Your task to perform on an android device: open app "Pandora - Music & Podcasts" (install if not already installed) Image 0: 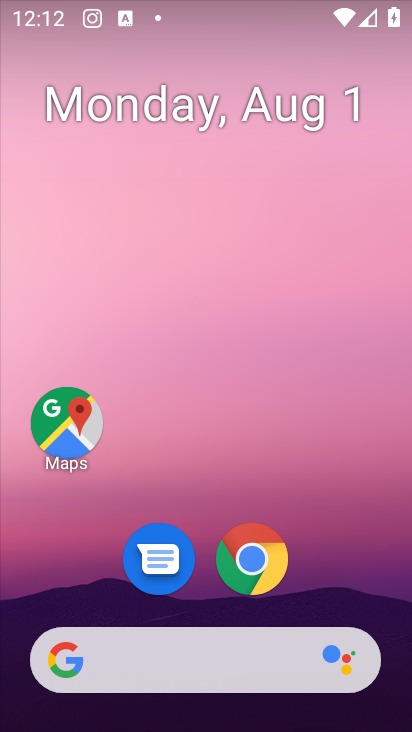
Step 0: drag from (122, 400) to (196, 19)
Your task to perform on an android device: open app "Pandora - Music & Podcasts" (install if not already installed) Image 1: 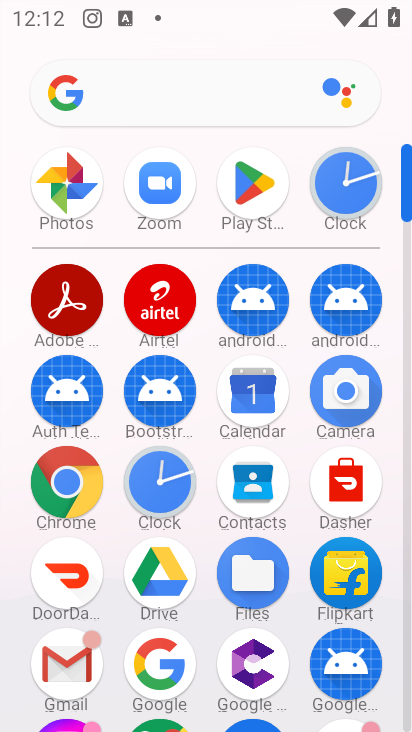
Step 1: click (247, 190)
Your task to perform on an android device: open app "Pandora - Music & Podcasts" (install if not already installed) Image 2: 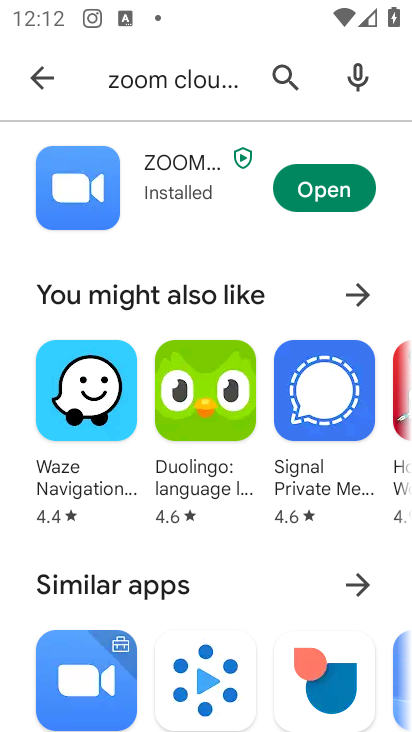
Step 2: click (280, 75)
Your task to perform on an android device: open app "Pandora - Music & Podcasts" (install if not already installed) Image 3: 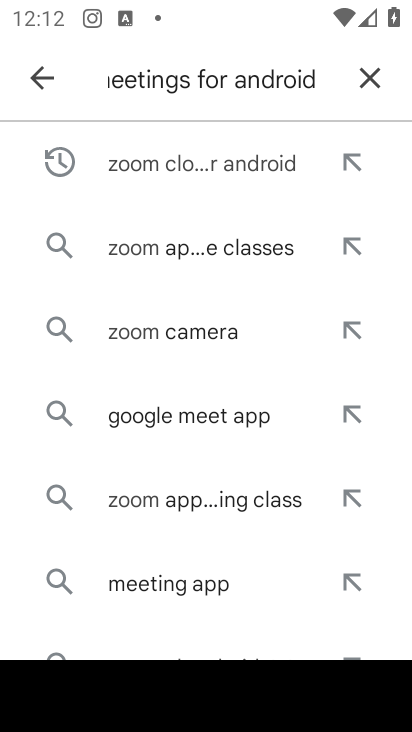
Step 3: click (371, 76)
Your task to perform on an android device: open app "Pandora - Music & Podcasts" (install if not already installed) Image 4: 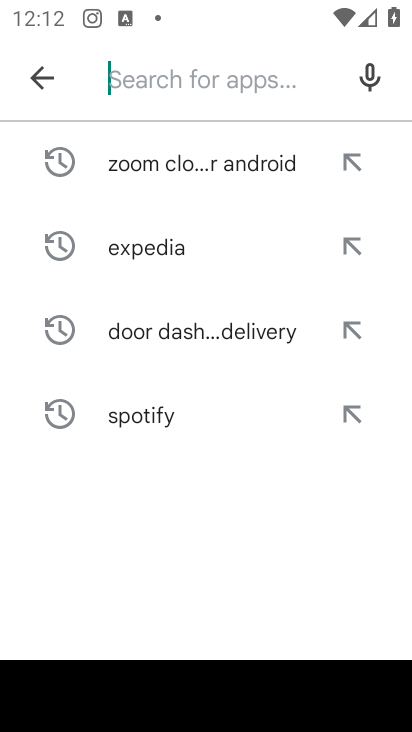
Step 4: click (140, 90)
Your task to perform on an android device: open app "Pandora - Music & Podcasts" (install if not already installed) Image 5: 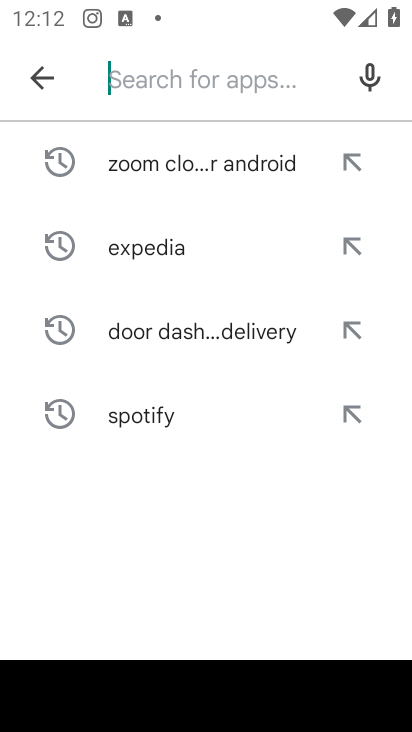
Step 5: type "pandora"
Your task to perform on an android device: open app "Pandora - Music & Podcasts" (install if not already installed) Image 6: 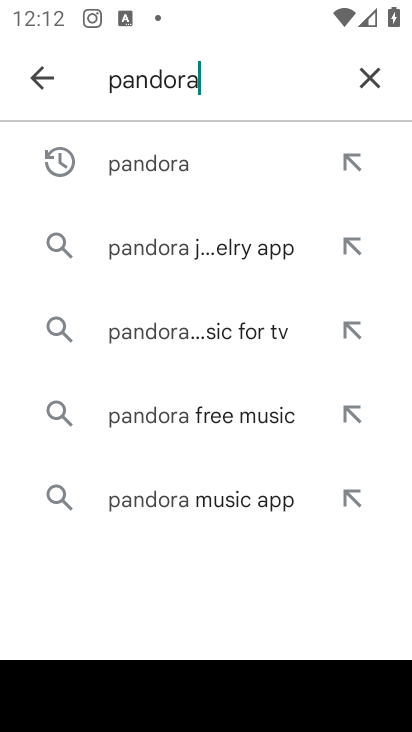
Step 6: click (124, 161)
Your task to perform on an android device: open app "Pandora - Music & Podcasts" (install if not already installed) Image 7: 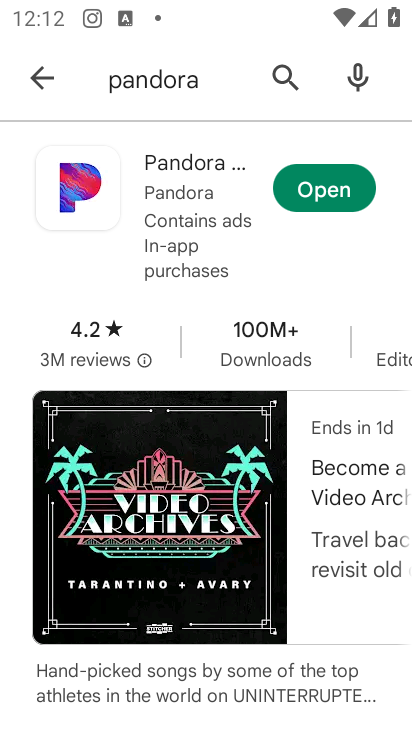
Step 7: click (297, 184)
Your task to perform on an android device: open app "Pandora - Music & Podcasts" (install if not already installed) Image 8: 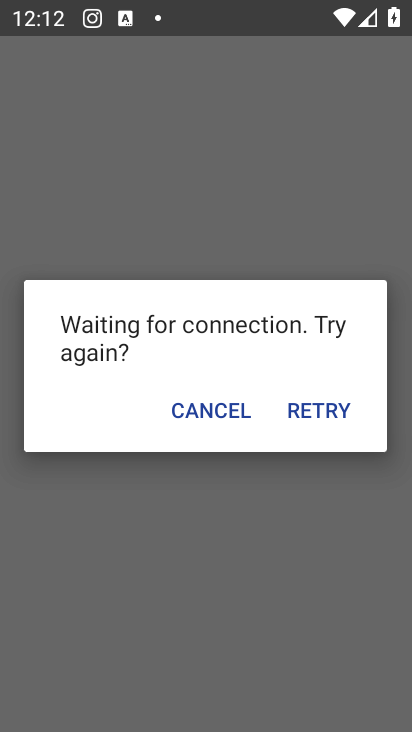
Step 8: click (217, 414)
Your task to perform on an android device: open app "Pandora - Music & Podcasts" (install if not already installed) Image 9: 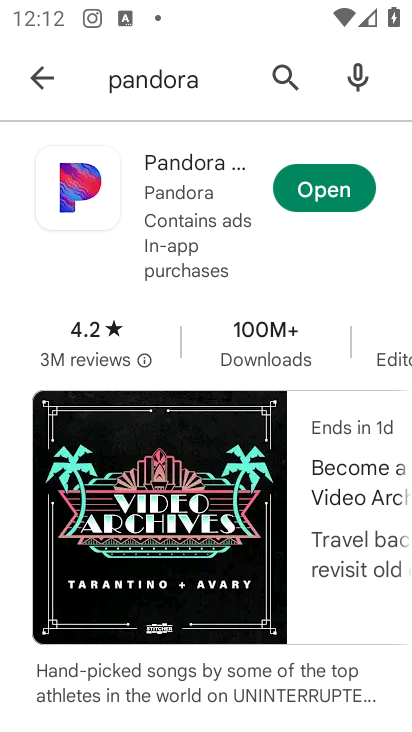
Step 9: click (335, 193)
Your task to perform on an android device: open app "Pandora - Music & Podcasts" (install if not already installed) Image 10: 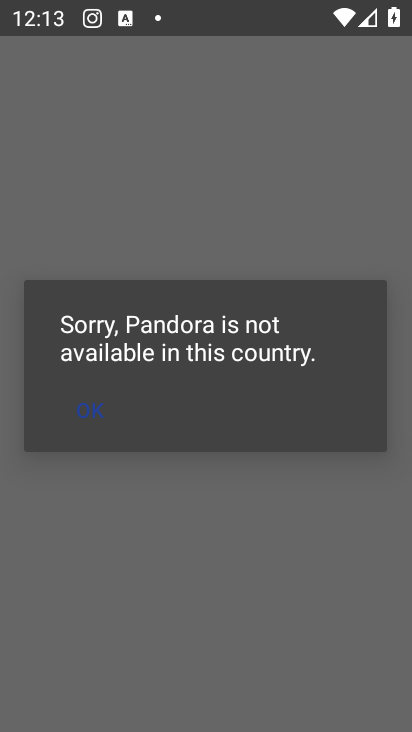
Step 10: task complete